Your task to perform on an android device: toggle wifi Image 0: 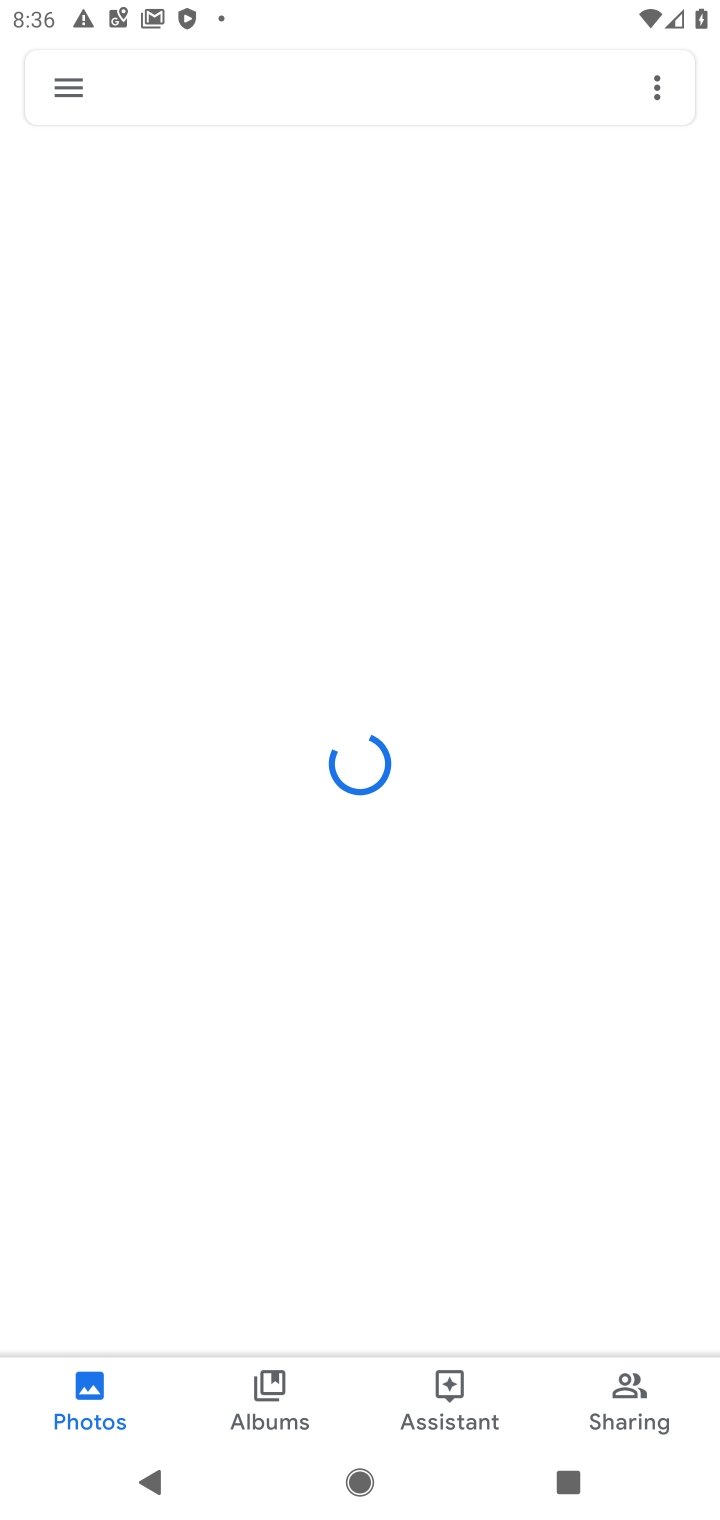
Step 0: press home button
Your task to perform on an android device: toggle wifi Image 1: 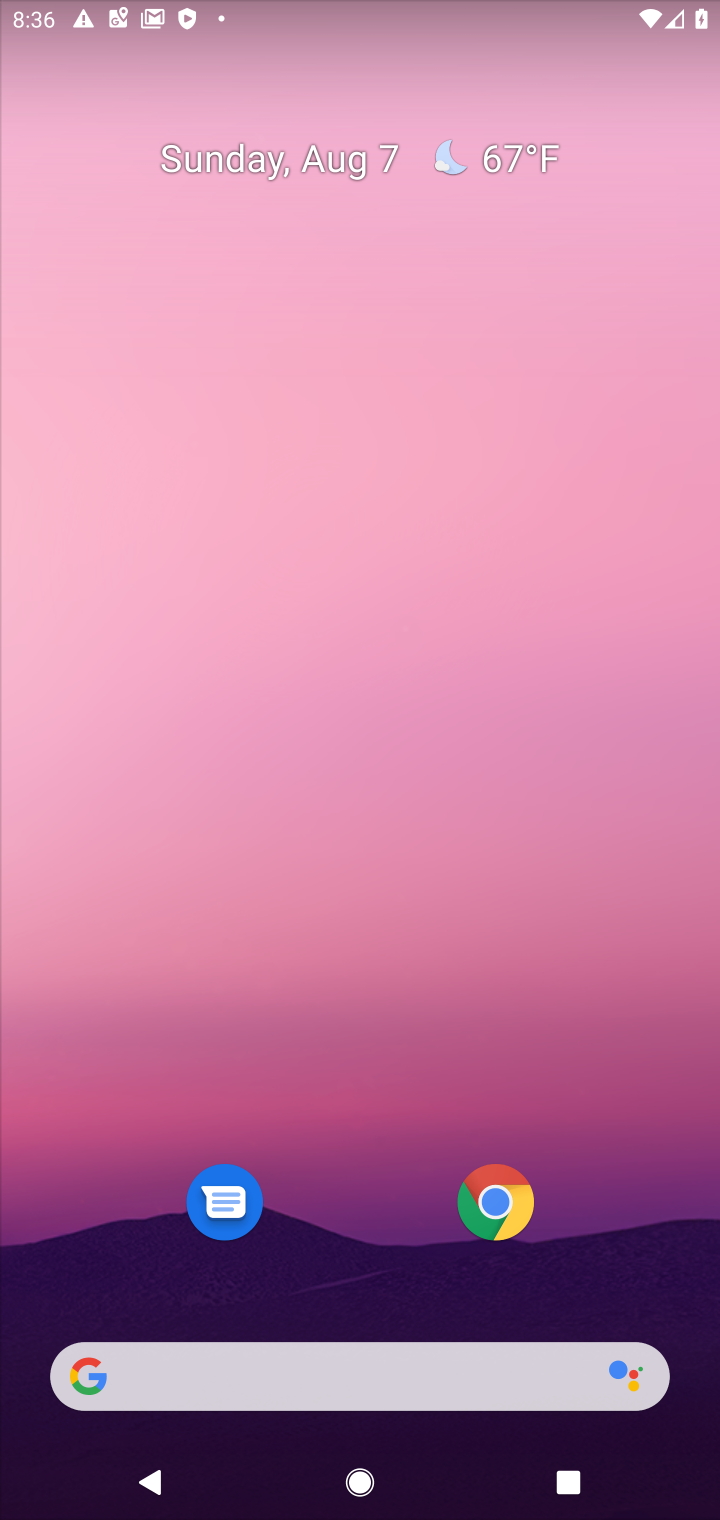
Step 1: drag from (280, 266) to (273, 192)
Your task to perform on an android device: toggle wifi Image 2: 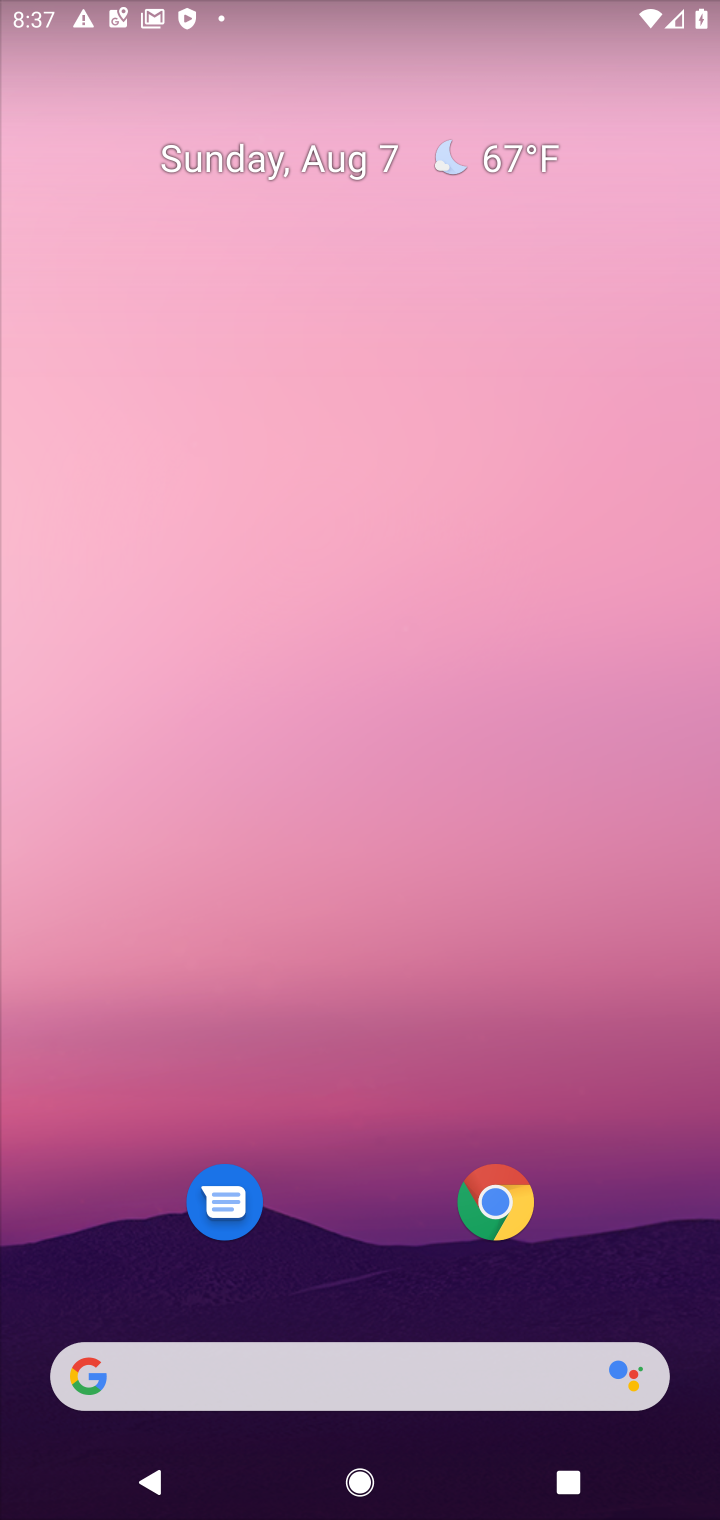
Step 2: drag from (340, 246) to (340, 124)
Your task to perform on an android device: toggle wifi Image 3: 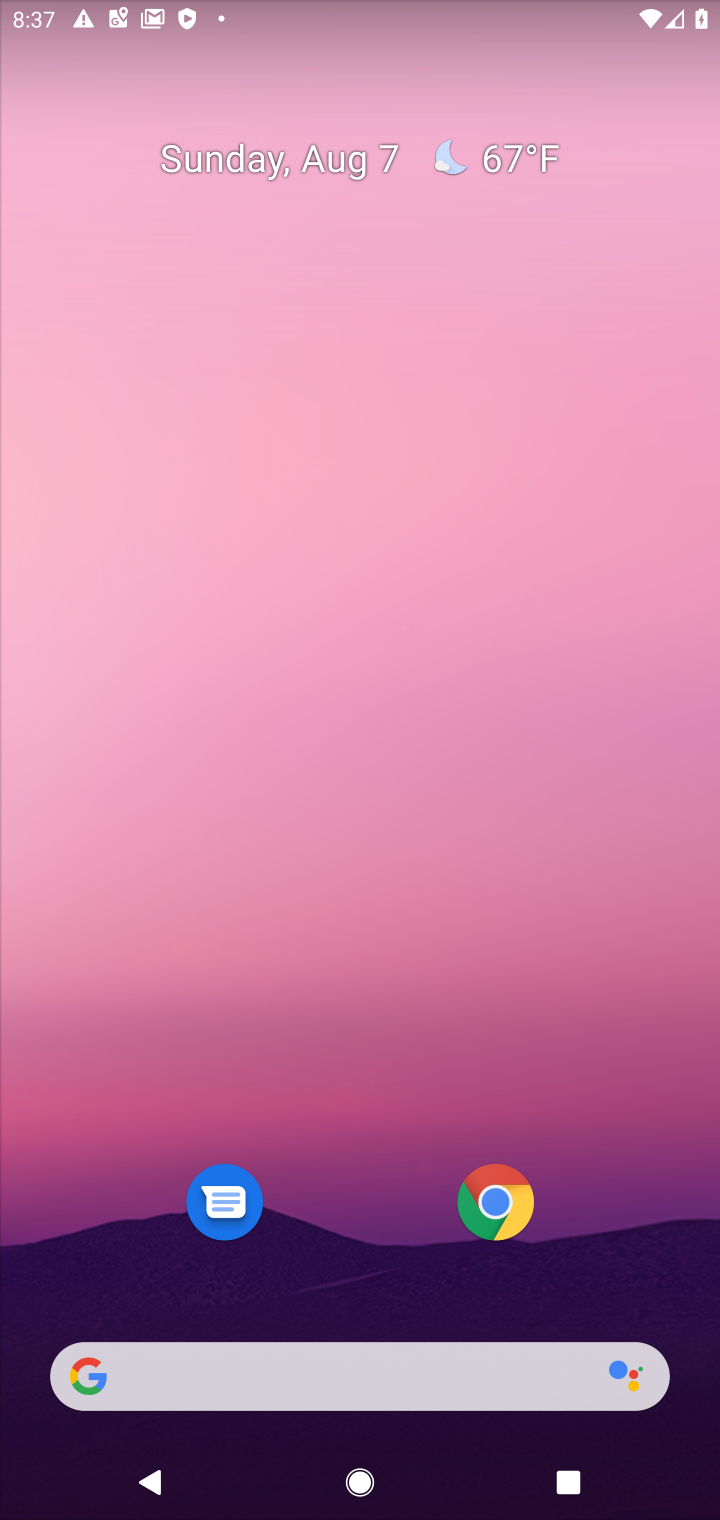
Step 3: drag from (364, 1170) to (504, 68)
Your task to perform on an android device: toggle wifi Image 4: 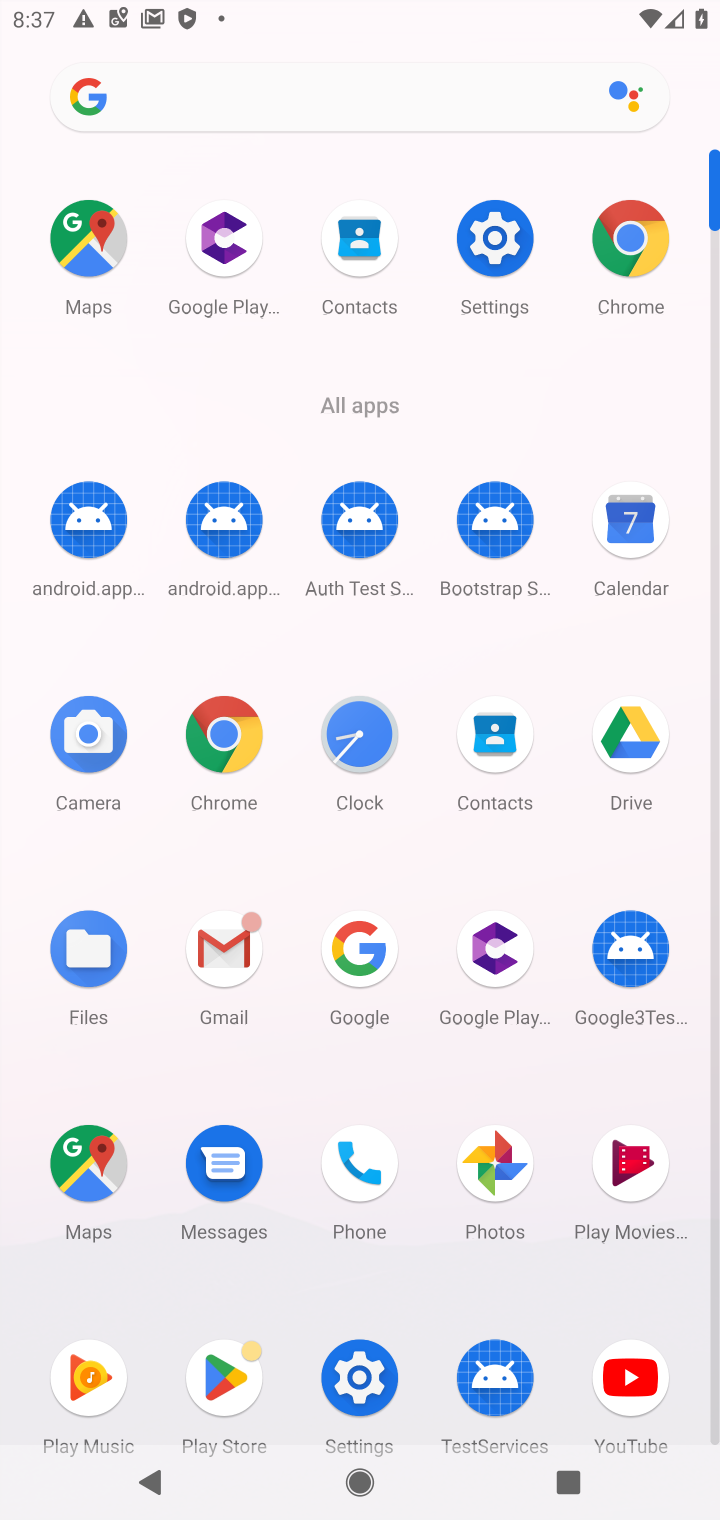
Step 4: click (492, 243)
Your task to perform on an android device: toggle wifi Image 5: 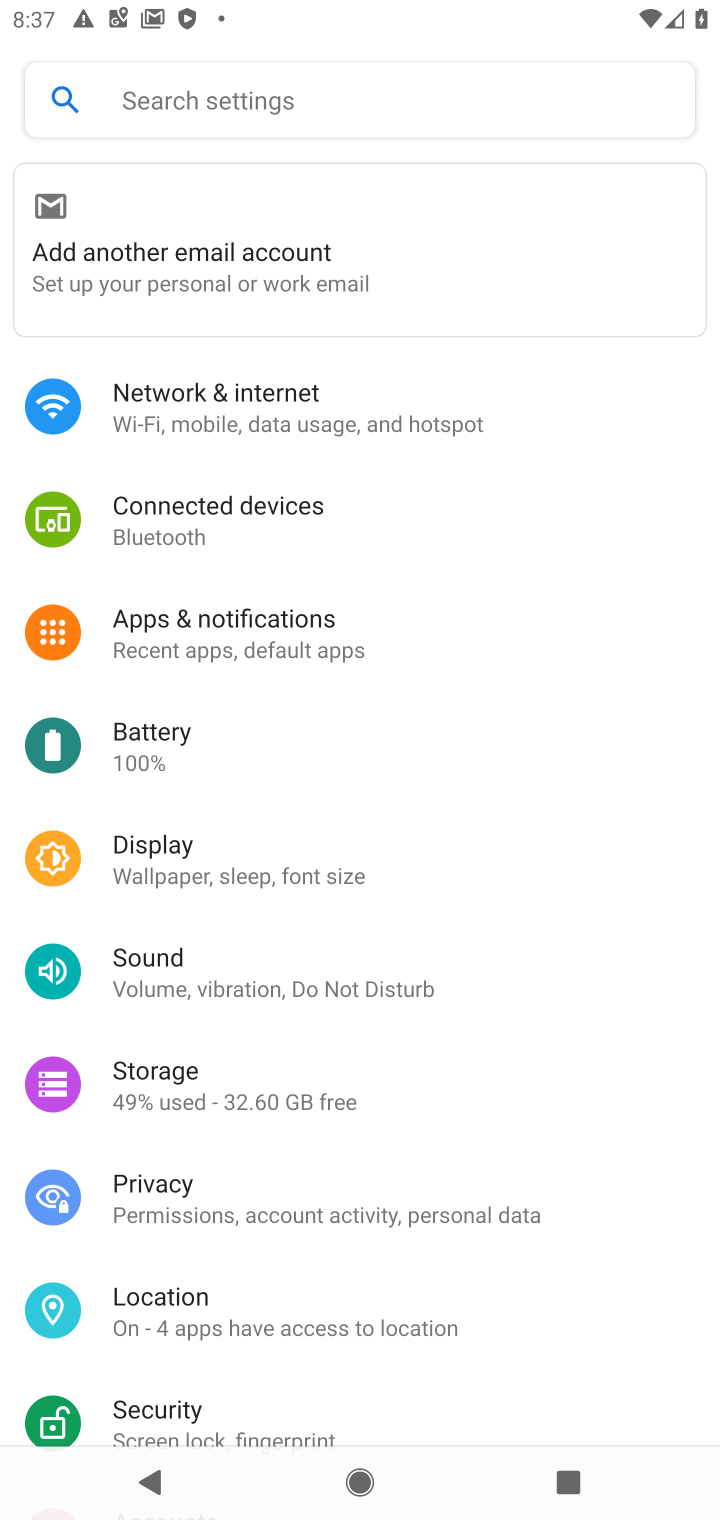
Step 5: click (322, 402)
Your task to perform on an android device: toggle wifi Image 6: 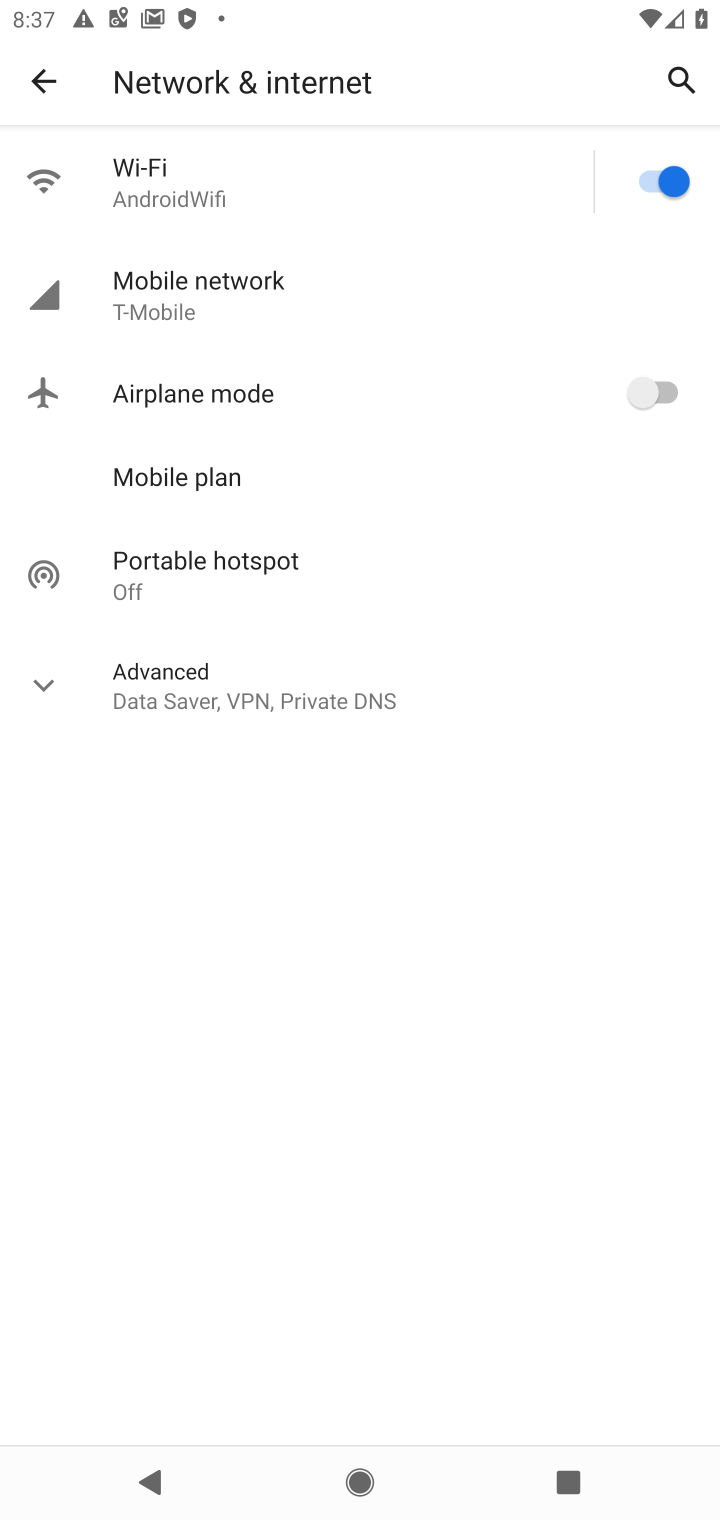
Step 6: click (642, 202)
Your task to perform on an android device: toggle wifi Image 7: 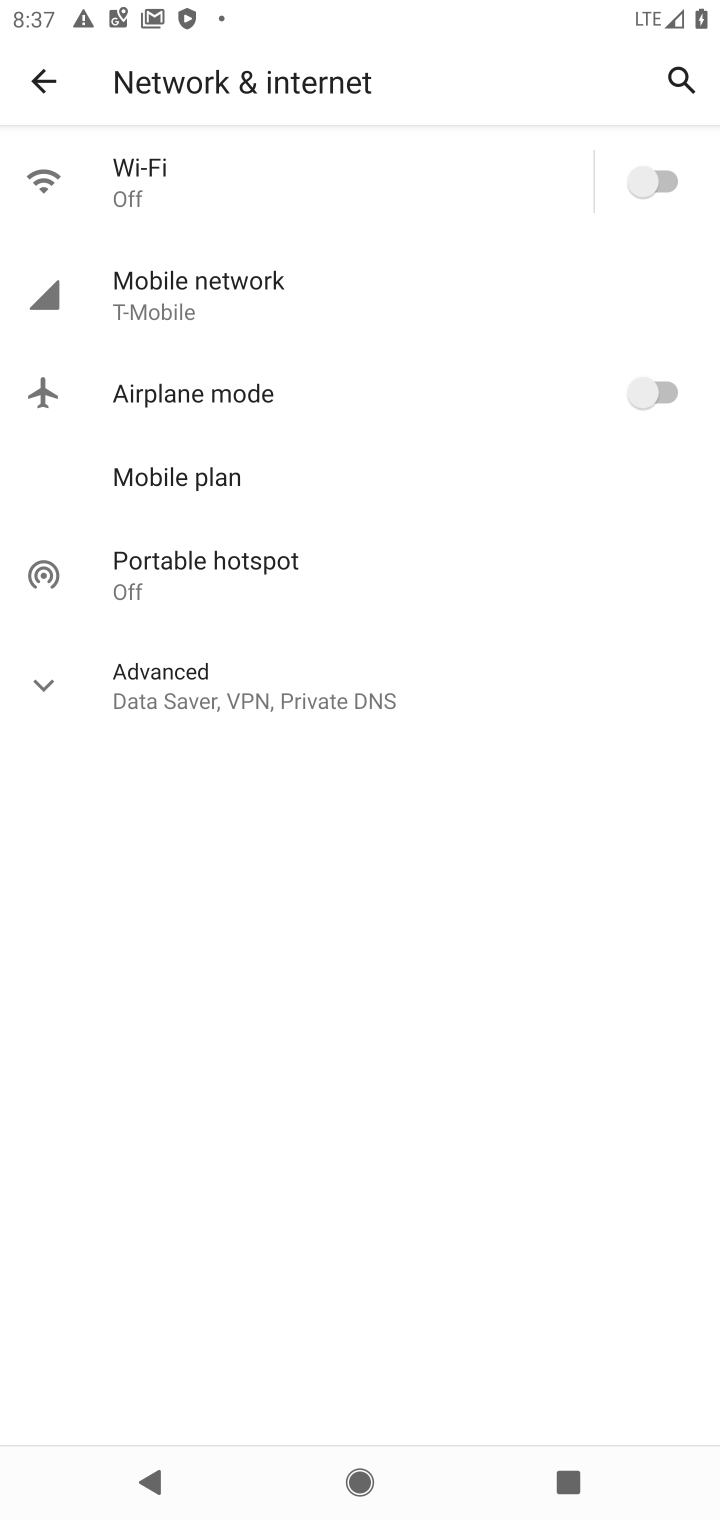
Step 7: task complete